Your task to perform on an android device: What's the weather today? Image 0: 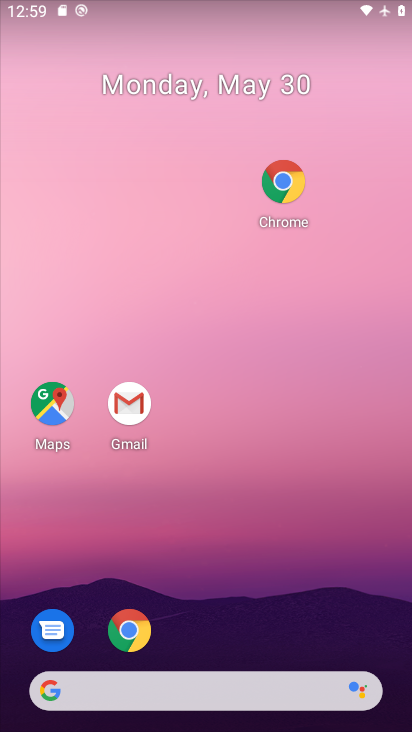
Step 0: drag from (4, 265) to (365, 323)
Your task to perform on an android device: What's the weather today? Image 1: 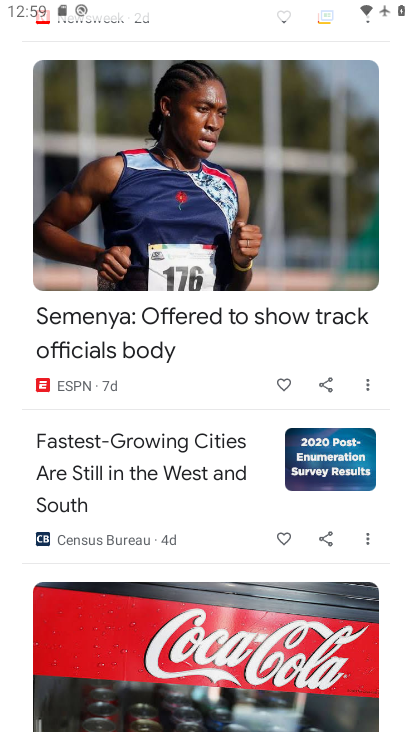
Step 1: drag from (168, 534) to (148, 246)
Your task to perform on an android device: What's the weather today? Image 2: 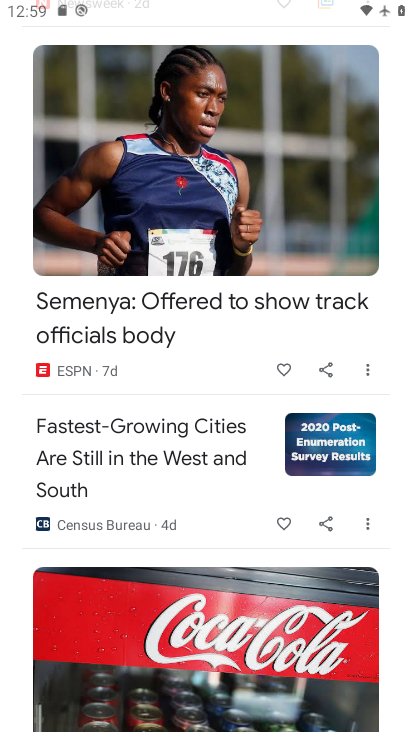
Step 2: drag from (151, 567) to (151, 205)
Your task to perform on an android device: What's the weather today? Image 3: 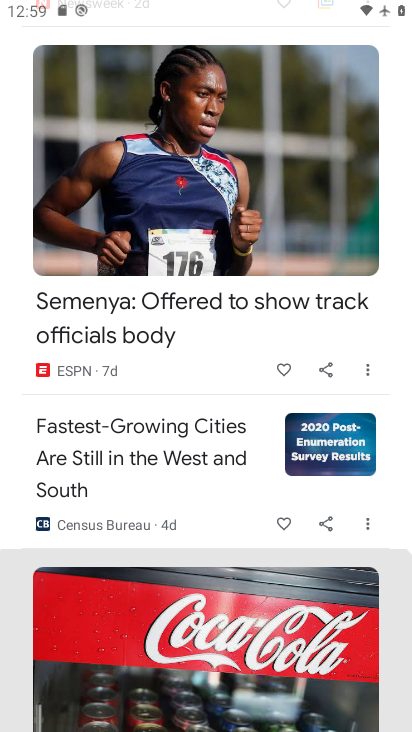
Step 3: drag from (96, 570) to (96, 236)
Your task to perform on an android device: What's the weather today? Image 4: 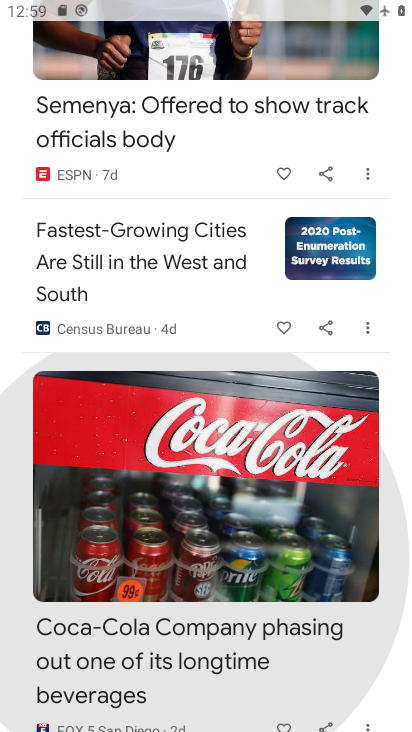
Step 4: drag from (96, 480) to (127, 163)
Your task to perform on an android device: What's the weather today? Image 5: 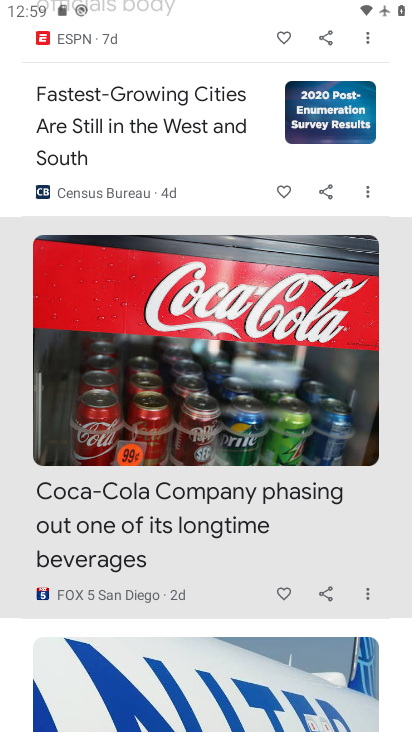
Step 5: drag from (194, 287) to (204, 220)
Your task to perform on an android device: What's the weather today? Image 6: 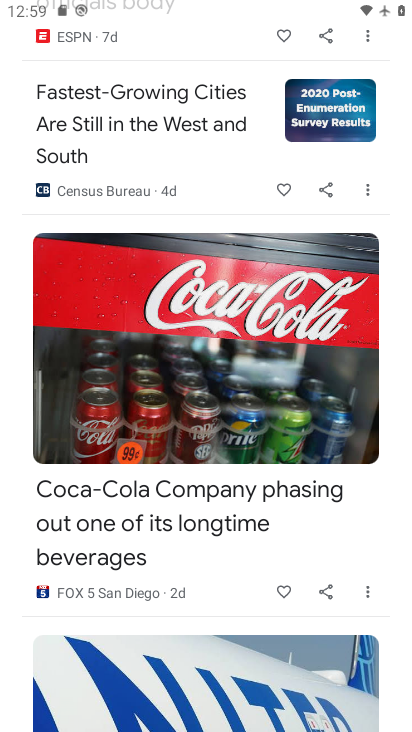
Step 6: click (210, 165)
Your task to perform on an android device: What's the weather today? Image 7: 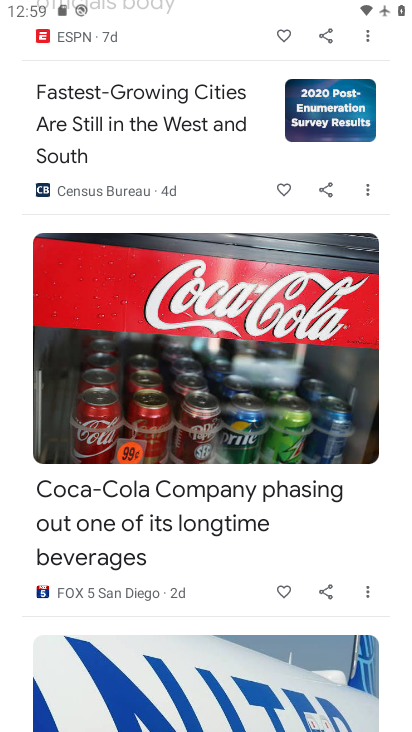
Step 7: click (187, 136)
Your task to perform on an android device: What's the weather today? Image 8: 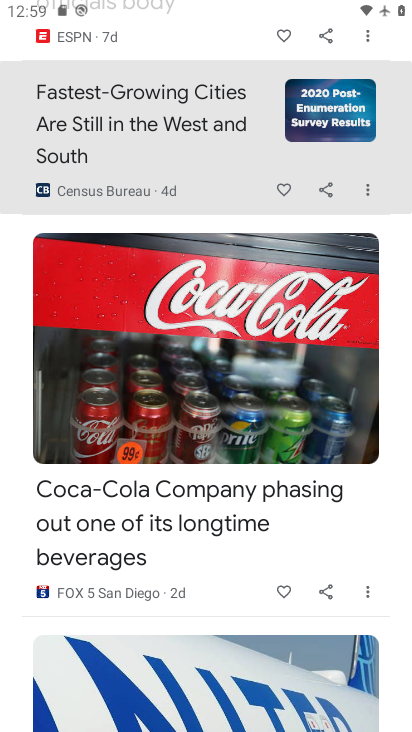
Step 8: task complete